Your task to perform on an android device: turn on notifications settings in the gmail app Image 0: 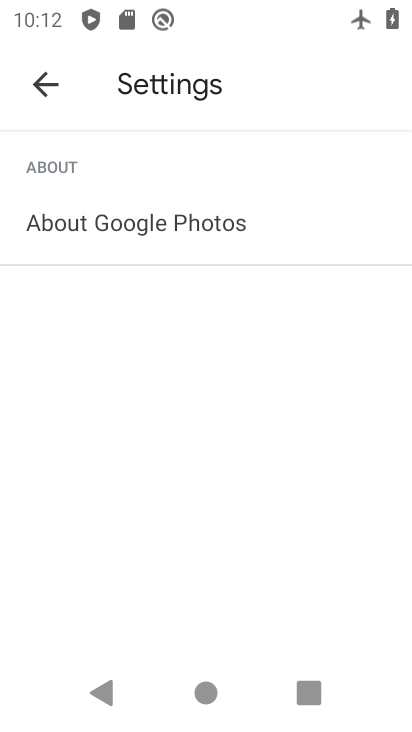
Step 0: press home button
Your task to perform on an android device: turn on notifications settings in the gmail app Image 1: 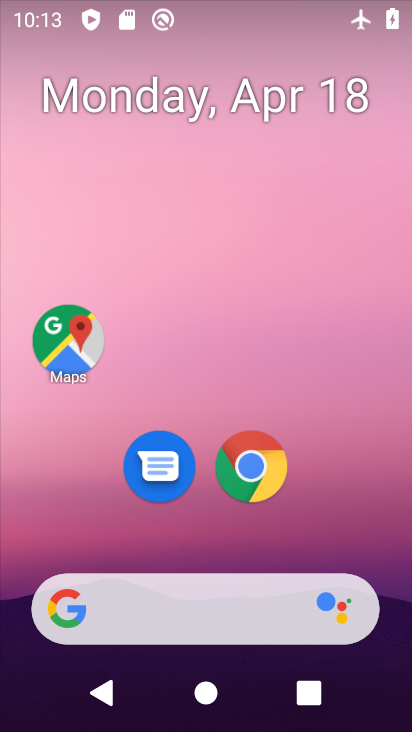
Step 1: drag from (232, 664) to (272, 268)
Your task to perform on an android device: turn on notifications settings in the gmail app Image 2: 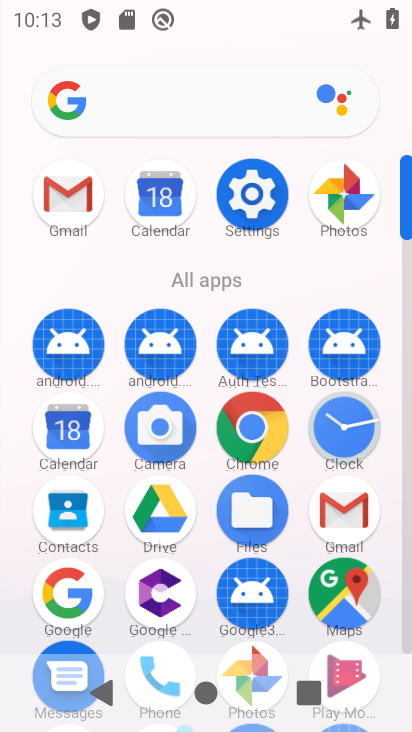
Step 2: click (333, 517)
Your task to perform on an android device: turn on notifications settings in the gmail app Image 3: 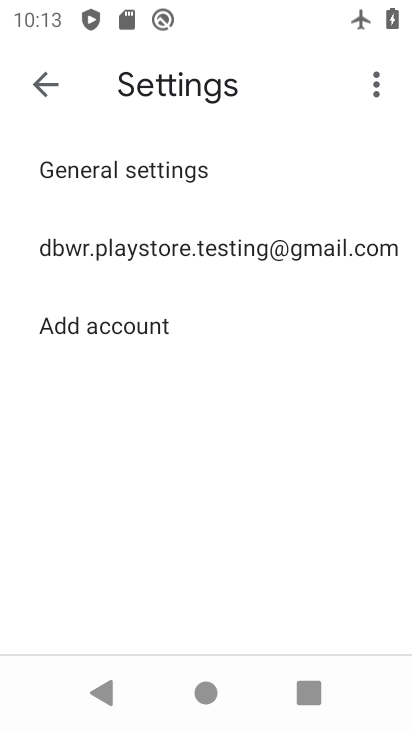
Step 3: click (232, 184)
Your task to perform on an android device: turn on notifications settings in the gmail app Image 4: 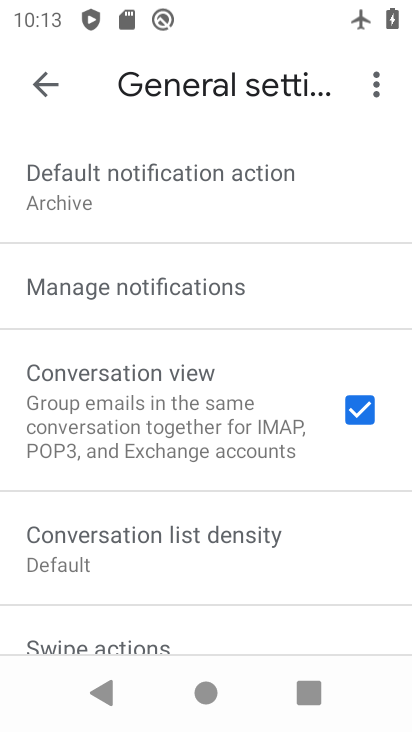
Step 4: click (214, 291)
Your task to perform on an android device: turn on notifications settings in the gmail app Image 5: 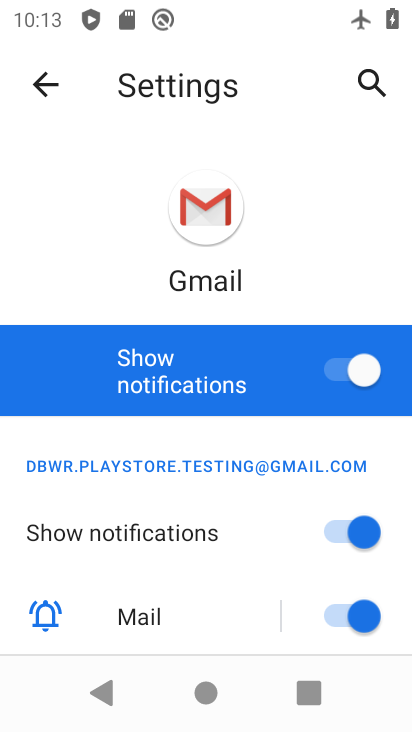
Step 5: task complete